Your task to perform on an android device: turn off notifications settings in the gmail app Image 0: 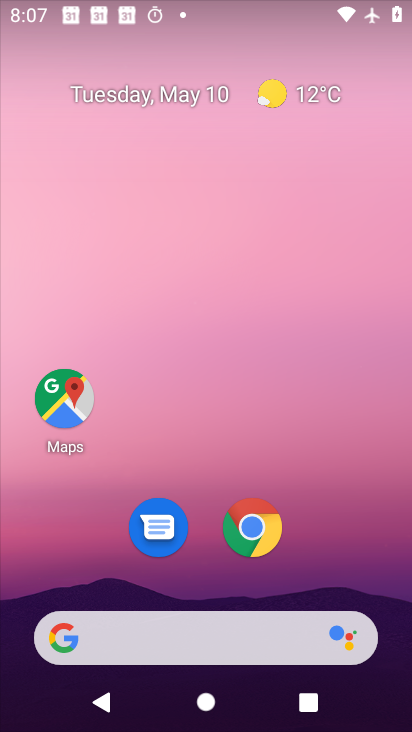
Step 0: drag from (335, 546) to (341, 116)
Your task to perform on an android device: turn off notifications settings in the gmail app Image 1: 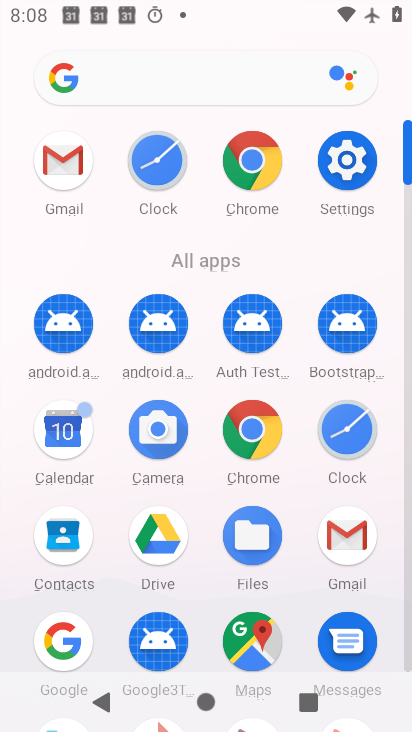
Step 1: click (75, 160)
Your task to perform on an android device: turn off notifications settings in the gmail app Image 2: 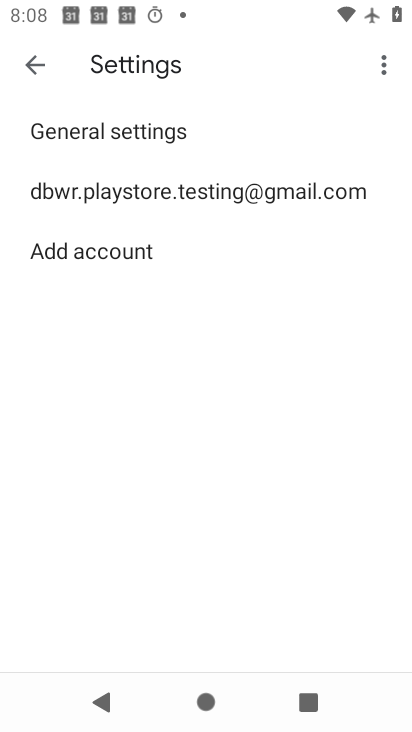
Step 2: click (87, 182)
Your task to perform on an android device: turn off notifications settings in the gmail app Image 3: 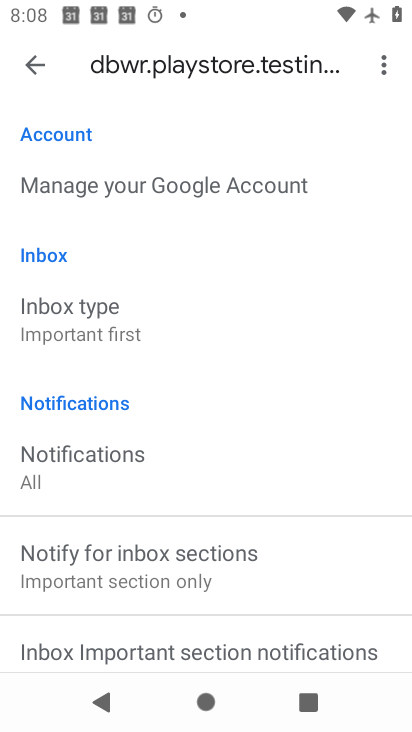
Step 3: click (108, 475)
Your task to perform on an android device: turn off notifications settings in the gmail app Image 4: 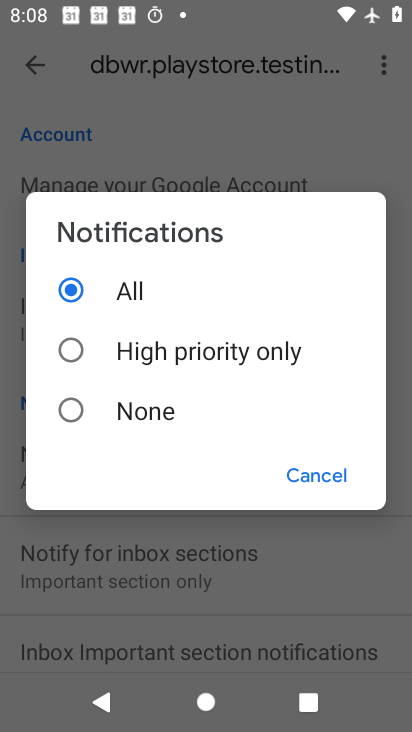
Step 4: click (154, 395)
Your task to perform on an android device: turn off notifications settings in the gmail app Image 5: 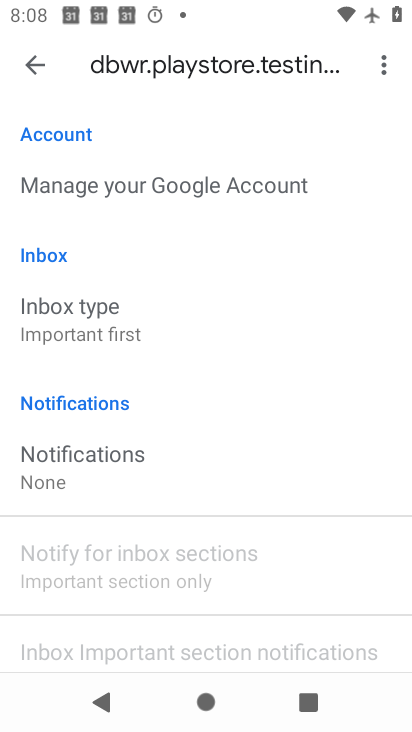
Step 5: click (118, 464)
Your task to perform on an android device: turn off notifications settings in the gmail app Image 6: 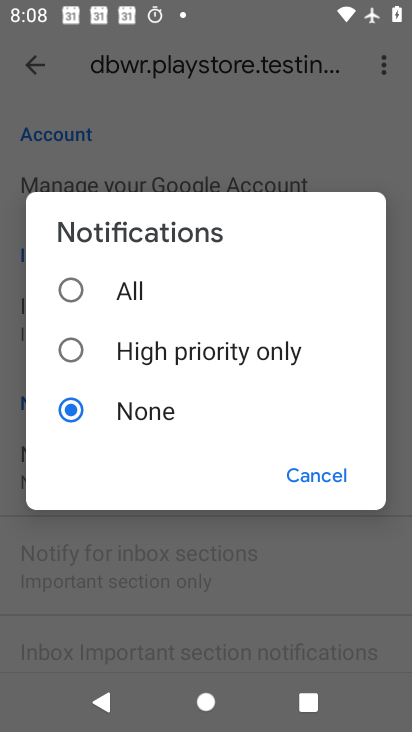
Step 6: task complete